Your task to perform on an android device: Go to accessibility settings Image 0: 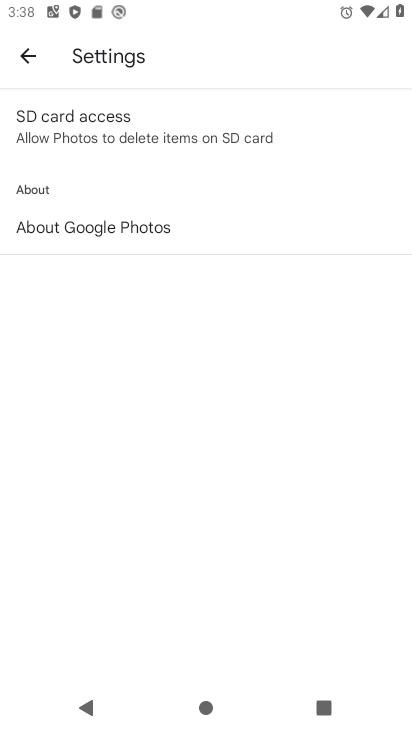
Step 0: press back button
Your task to perform on an android device: Go to accessibility settings Image 1: 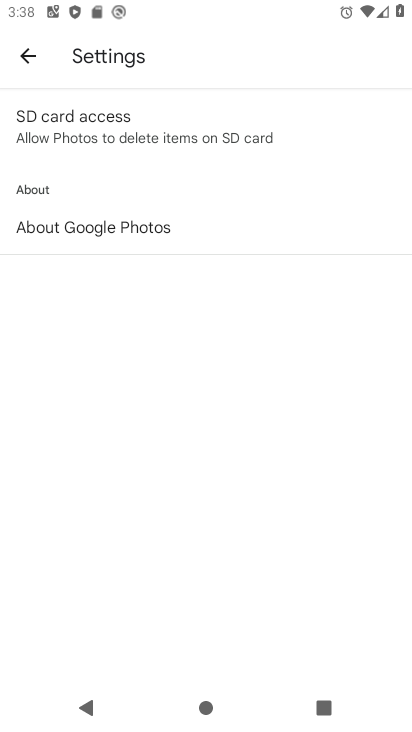
Step 1: press back button
Your task to perform on an android device: Go to accessibility settings Image 2: 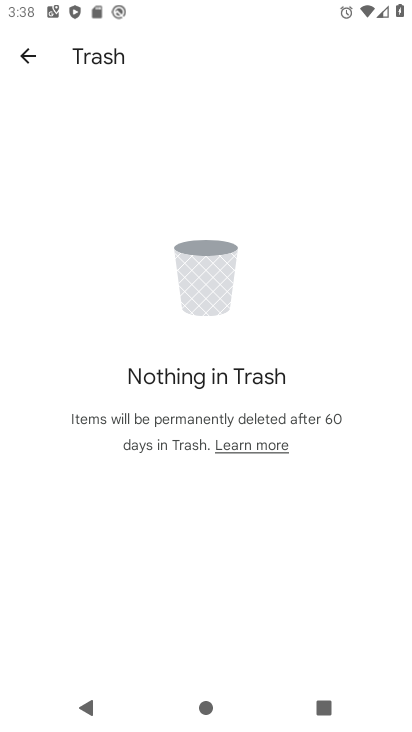
Step 2: press back button
Your task to perform on an android device: Go to accessibility settings Image 3: 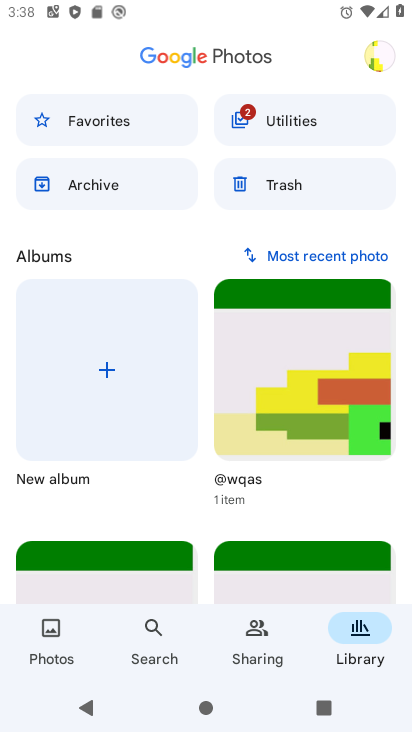
Step 3: press home button
Your task to perform on an android device: Go to accessibility settings Image 4: 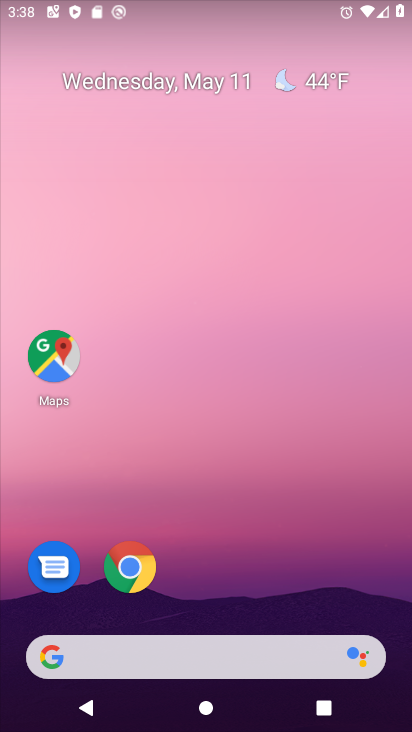
Step 4: drag from (238, 566) to (209, 2)
Your task to perform on an android device: Go to accessibility settings Image 5: 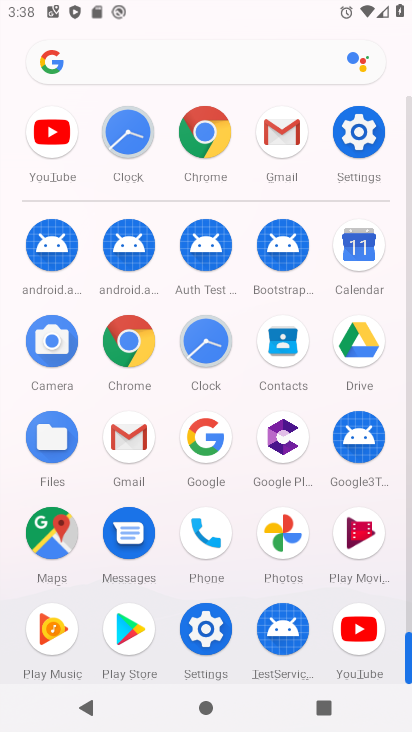
Step 5: click (202, 623)
Your task to perform on an android device: Go to accessibility settings Image 6: 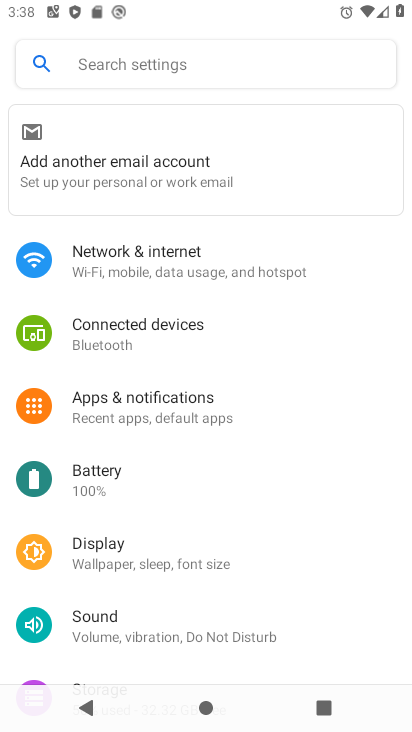
Step 6: drag from (271, 563) to (266, 115)
Your task to perform on an android device: Go to accessibility settings Image 7: 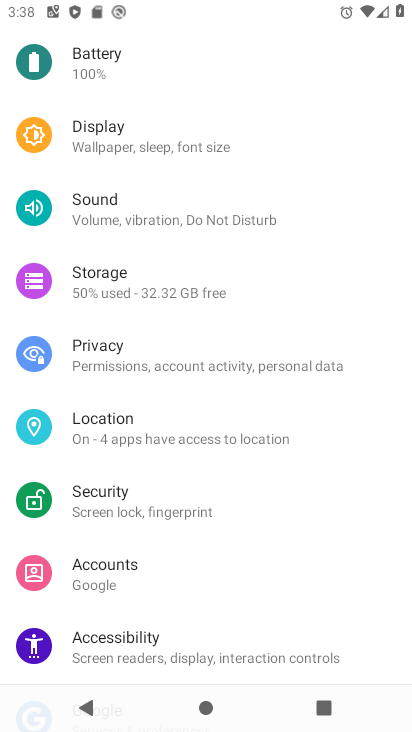
Step 7: drag from (272, 593) to (275, 152)
Your task to perform on an android device: Go to accessibility settings Image 8: 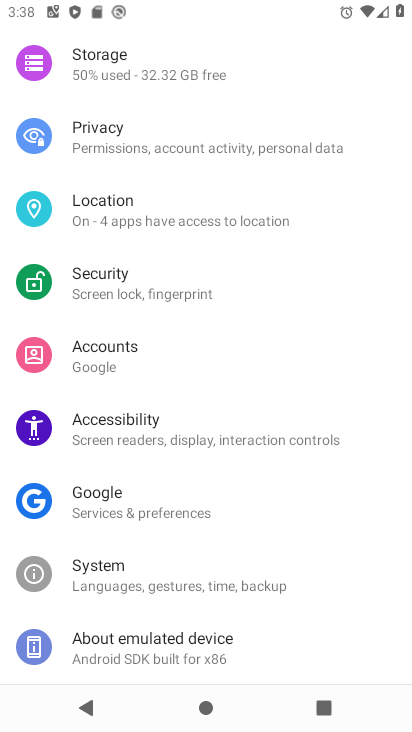
Step 8: click (121, 202)
Your task to perform on an android device: Go to accessibility settings Image 9: 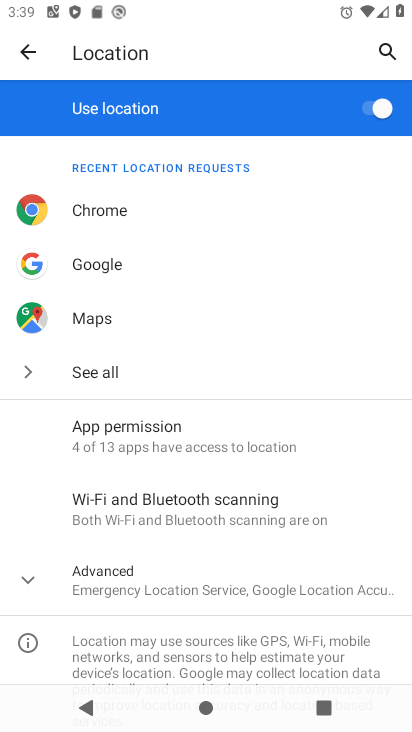
Step 9: drag from (227, 536) to (278, 190)
Your task to perform on an android device: Go to accessibility settings Image 10: 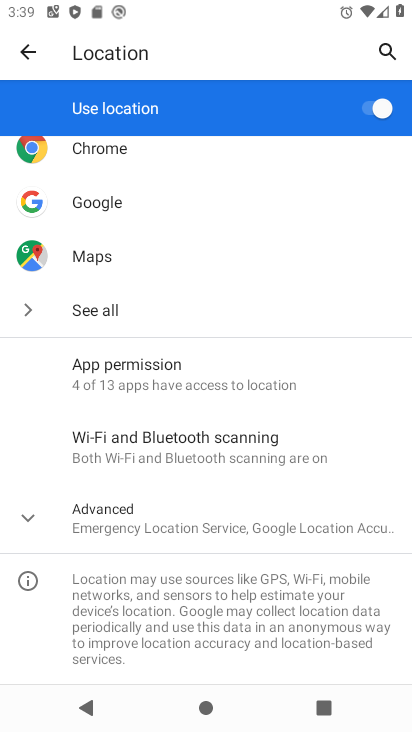
Step 10: click (7, 56)
Your task to perform on an android device: Go to accessibility settings Image 11: 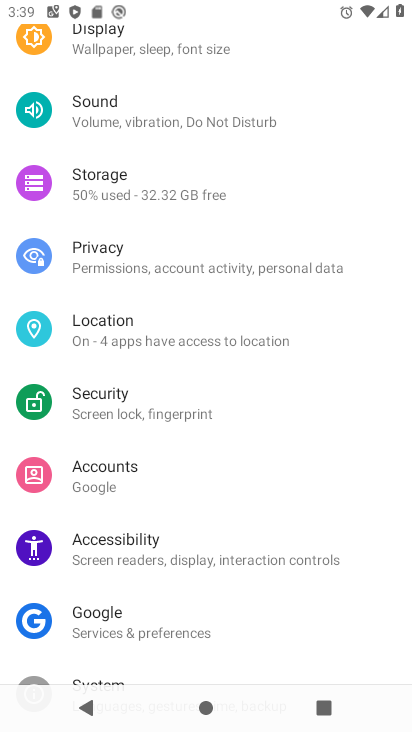
Step 11: press back button
Your task to perform on an android device: Go to accessibility settings Image 12: 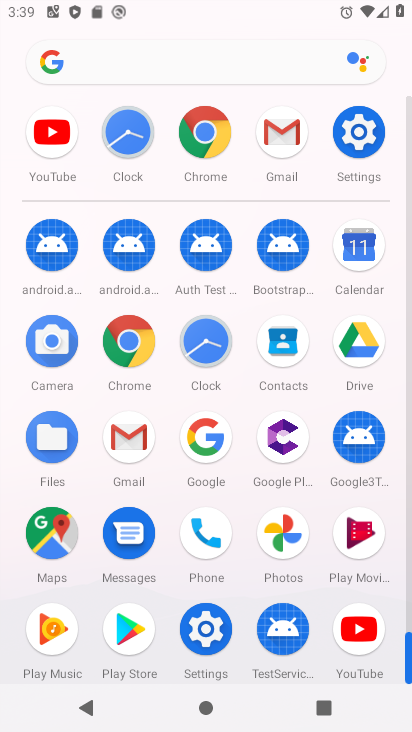
Step 12: click (222, 625)
Your task to perform on an android device: Go to accessibility settings Image 13: 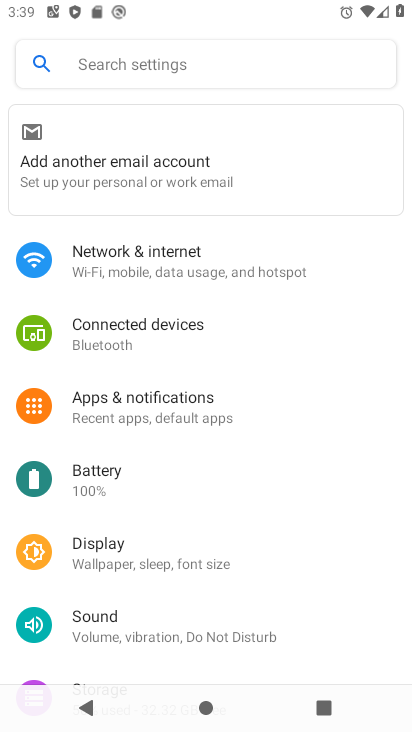
Step 13: drag from (250, 511) to (244, 114)
Your task to perform on an android device: Go to accessibility settings Image 14: 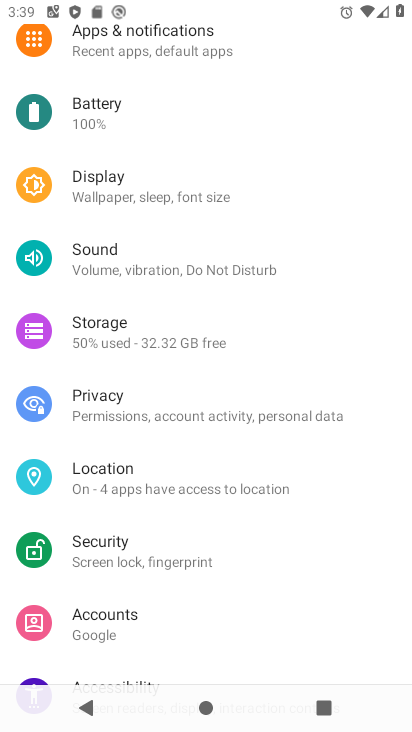
Step 14: drag from (238, 530) to (276, 105)
Your task to perform on an android device: Go to accessibility settings Image 15: 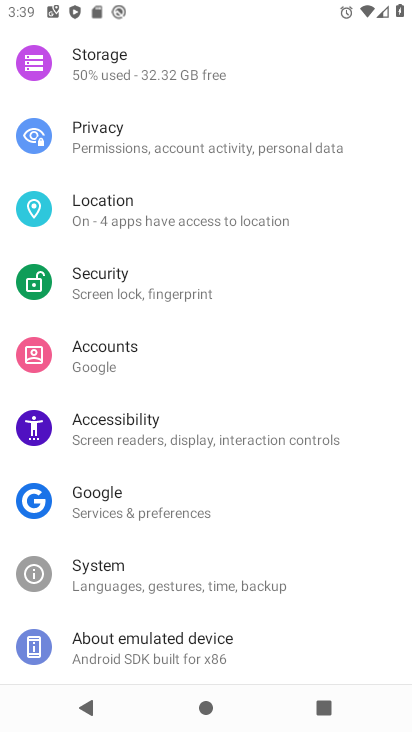
Step 15: drag from (239, 505) to (291, 91)
Your task to perform on an android device: Go to accessibility settings Image 16: 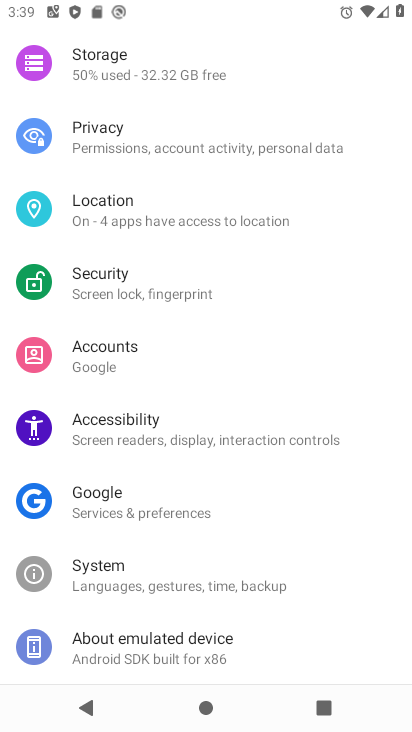
Step 16: drag from (263, 477) to (294, 105)
Your task to perform on an android device: Go to accessibility settings Image 17: 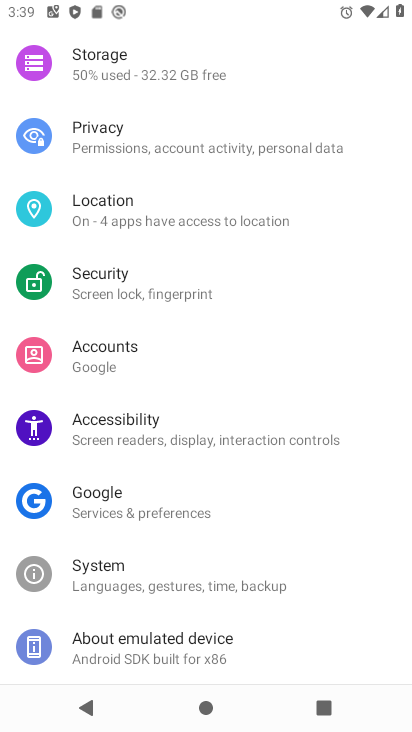
Step 17: click (156, 419)
Your task to perform on an android device: Go to accessibility settings Image 18: 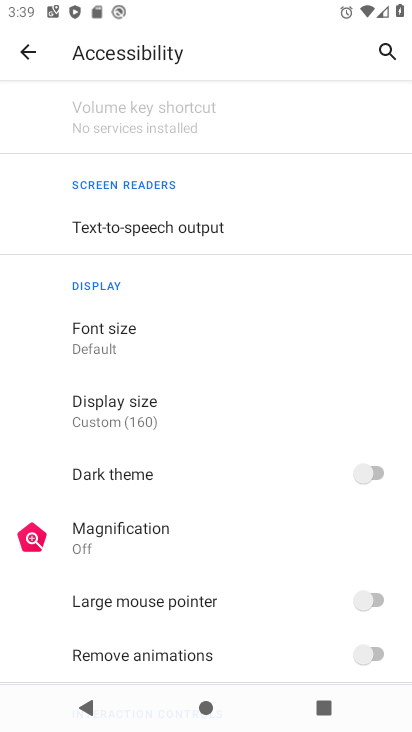
Step 18: task complete